Your task to perform on an android device: make emails show in primary in the gmail app Image 0: 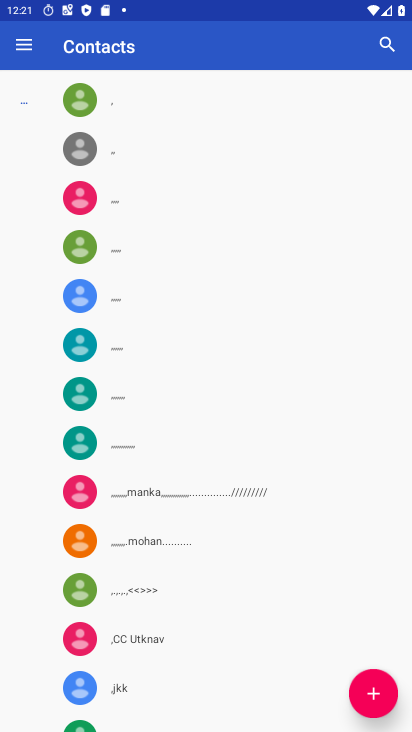
Step 0: press home button
Your task to perform on an android device: make emails show in primary in the gmail app Image 1: 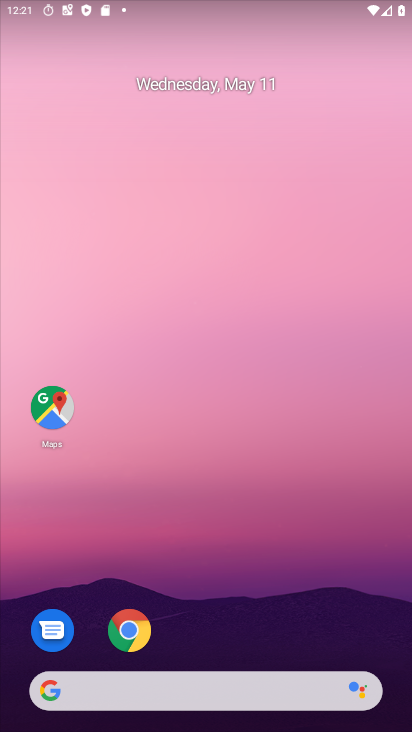
Step 1: drag from (251, 441) to (283, 80)
Your task to perform on an android device: make emails show in primary in the gmail app Image 2: 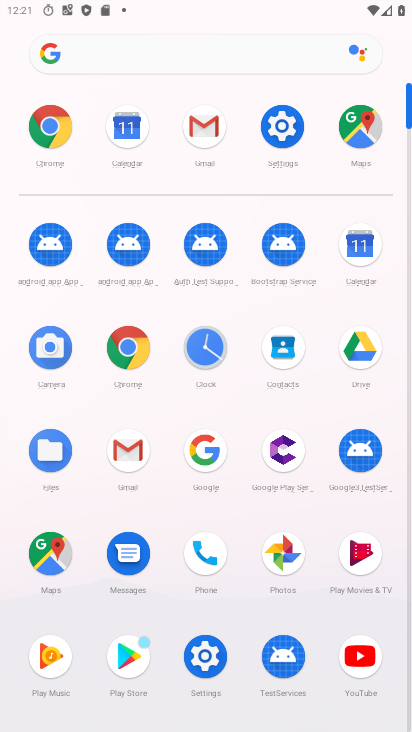
Step 2: click (207, 137)
Your task to perform on an android device: make emails show in primary in the gmail app Image 3: 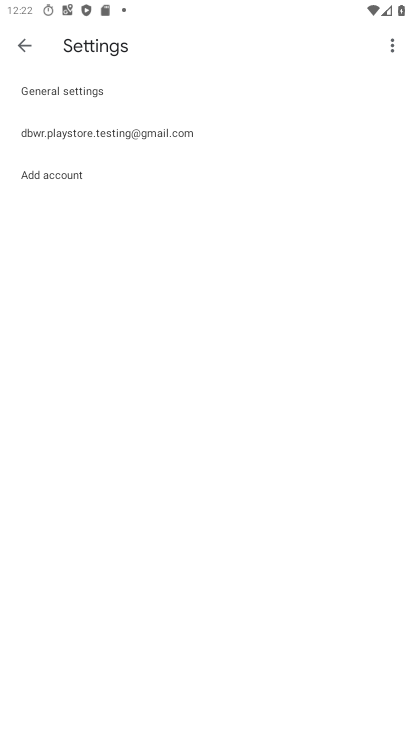
Step 3: click (62, 147)
Your task to perform on an android device: make emails show in primary in the gmail app Image 4: 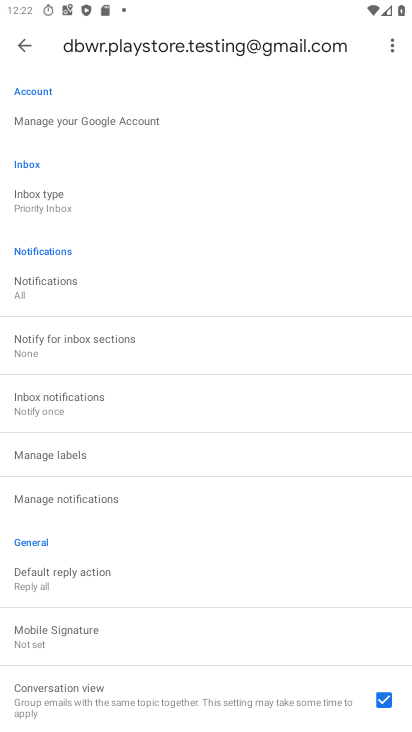
Step 4: click (39, 192)
Your task to perform on an android device: make emails show in primary in the gmail app Image 5: 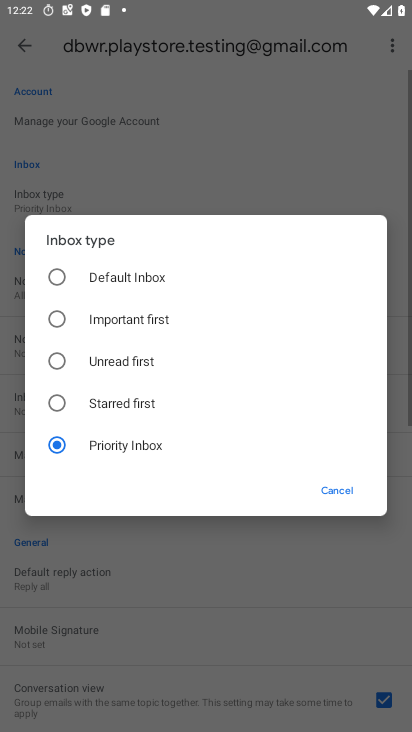
Step 5: click (115, 285)
Your task to perform on an android device: make emails show in primary in the gmail app Image 6: 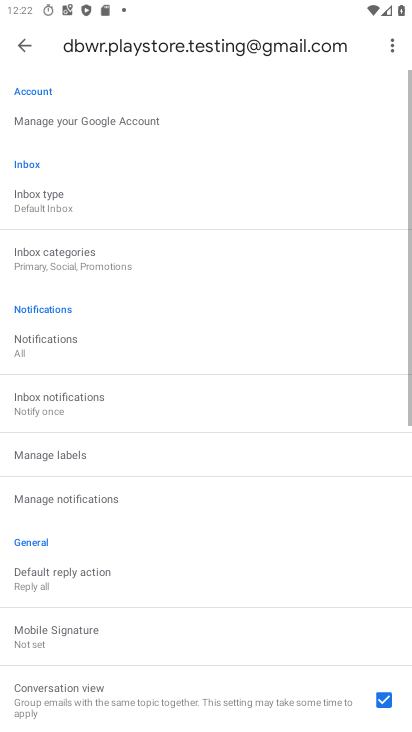
Step 6: click (45, 262)
Your task to perform on an android device: make emails show in primary in the gmail app Image 7: 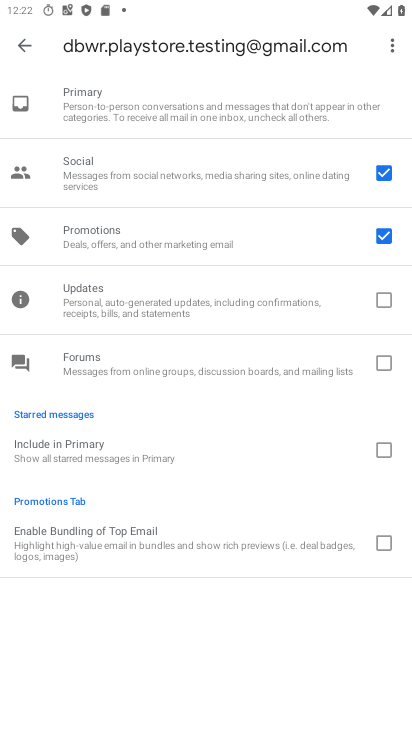
Step 7: task complete